Your task to perform on an android device: Open calendar and show me the fourth week of next month Image 0: 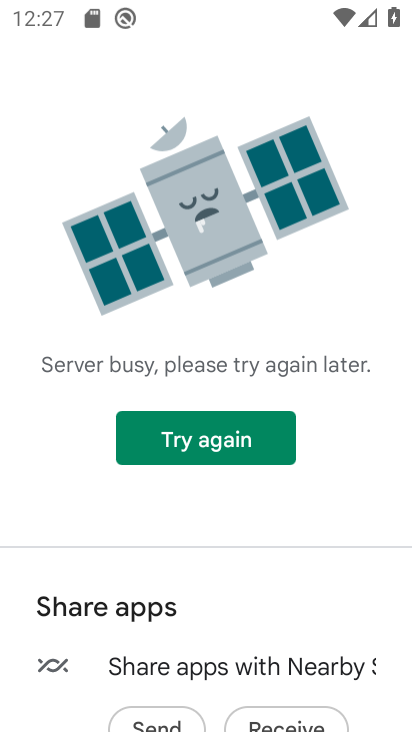
Step 0: press home button
Your task to perform on an android device: Open calendar and show me the fourth week of next month Image 1: 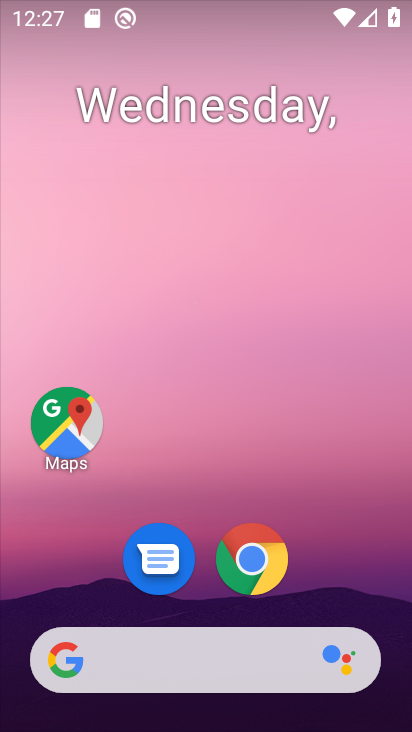
Step 1: drag from (336, 495) to (239, 119)
Your task to perform on an android device: Open calendar and show me the fourth week of next month Image 2: 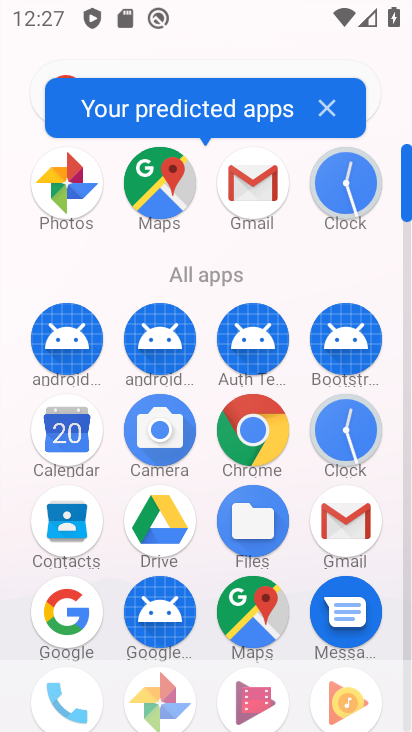
Step 2: click (76, 442)
Your task to perform on an android device: Open calendar and show me the fourth week of next month Image 3: 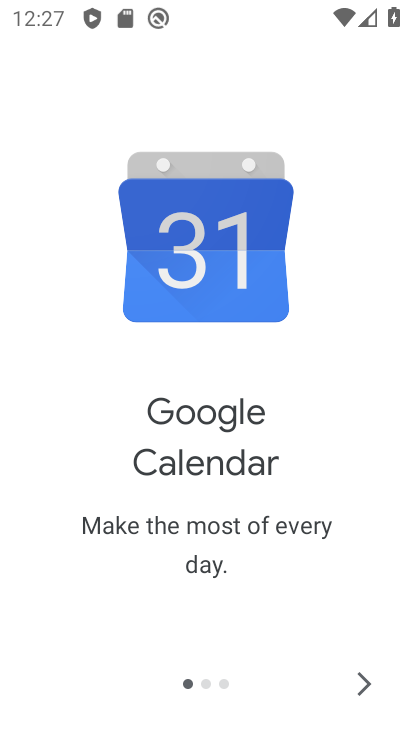
Step 3: click (360, 688)
Your task to perform on an android device: Open calendar and show me the fourth week of next month Image 4: 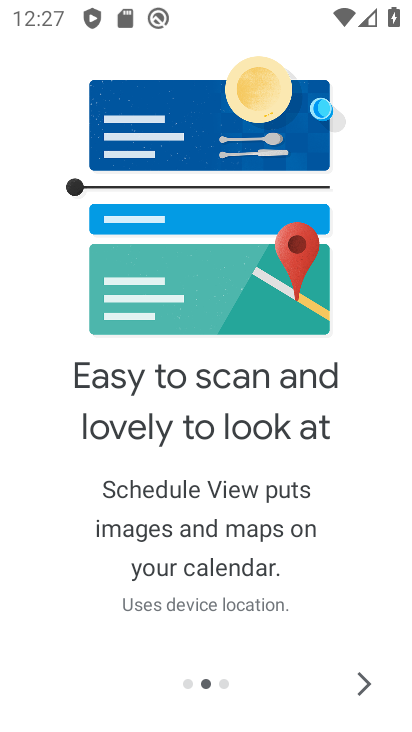
Step 4: click (361, 686)
Your task to perform on an android device: Open calendar and show me the fourth week of next month Image 5: 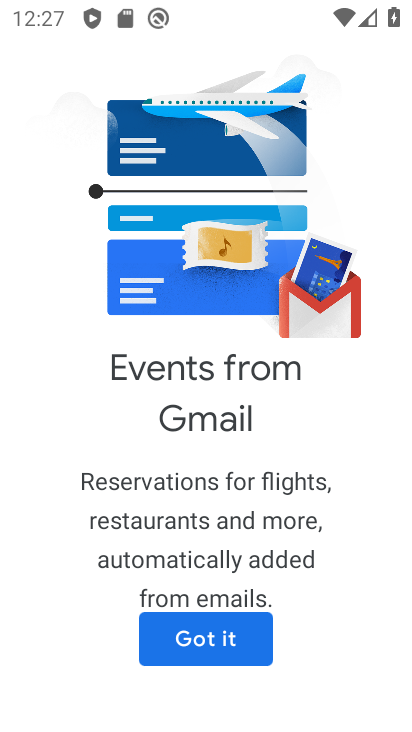
Step 5: click (231, 647)
Your task to perform on an android device: Open calendar and show me the fourth week of next month Image 6: 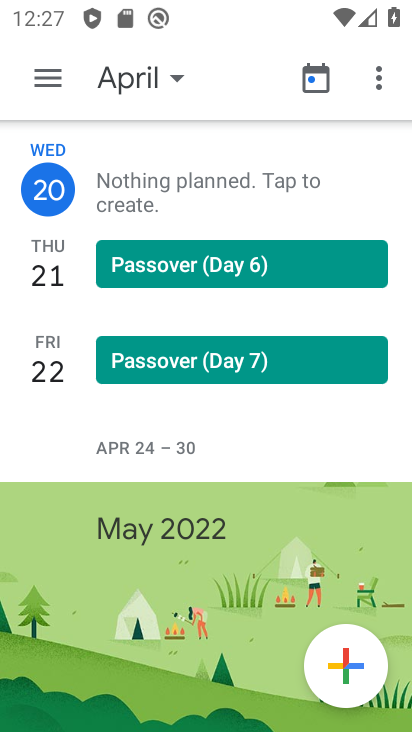
Step 6: click (157, 73)
Your task to perform on an android device: Open calendar and show me the fourth week of next month Image 7: 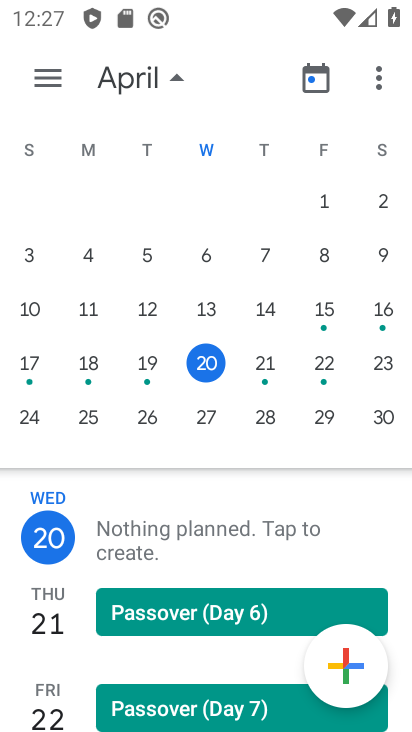
Step 7: drag from (353, 351) to (18, 344)
Your task to perform on an android device: Open calendar and show me the fourth week of next month Image 8: 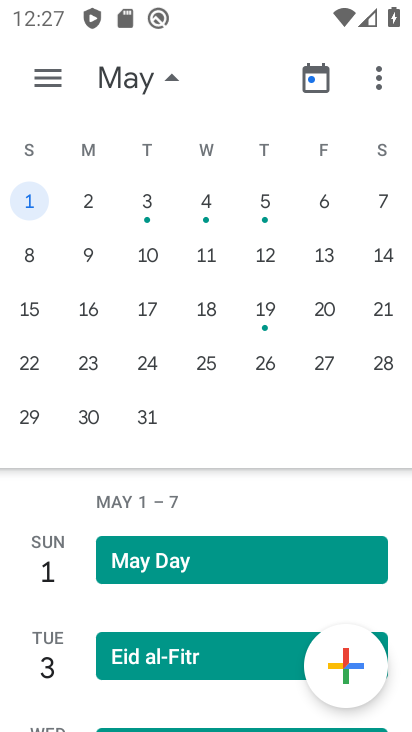
Step 8: click (30, 365)
Your task to perform on an android device: Open calendar and show me the fourth week of next month Image 9: 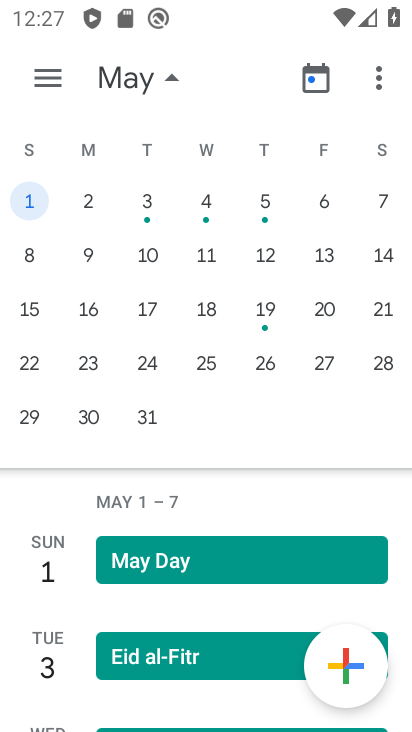
Step 9: click (34, 362)
Your task to perform on an android device: Open calendar and show me the fourth week of next month Image 10: 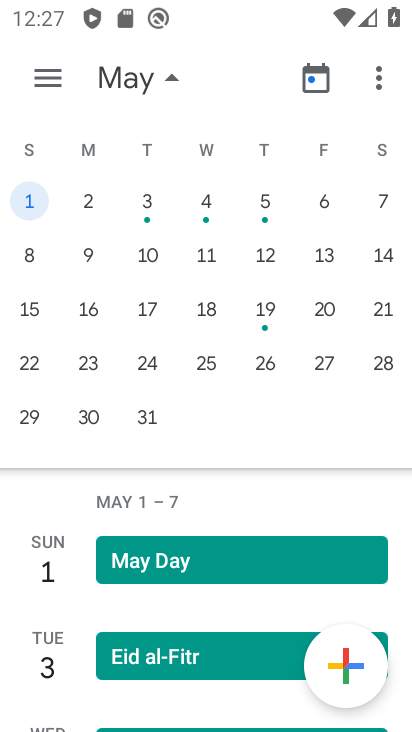
Step 10: click (34, 360)
Your task to perform on an android device: Open calendar and show me the fourth week of next month Image 11: 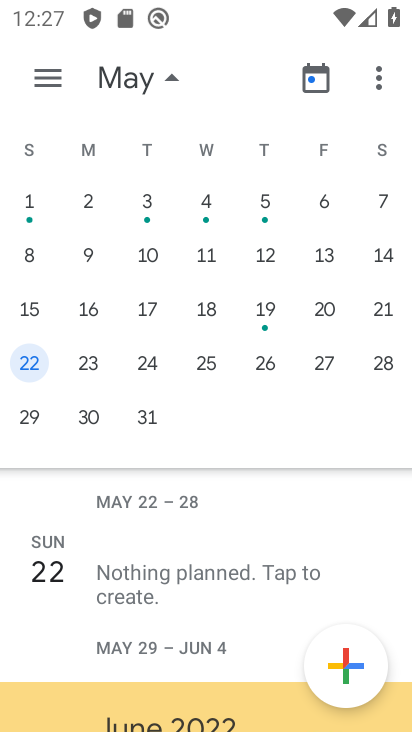
Step 11: click (54, 77)
Your task to perform on an android device: Open calendar and show me the fourth week of next month Image 12: 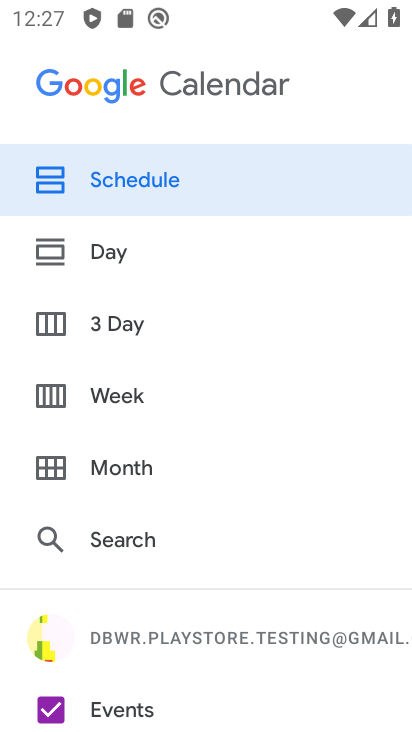
Step 12: click (112, 387)
Your task to perform on an android device: Open calendar and show me the fourth week of next month Image 13: 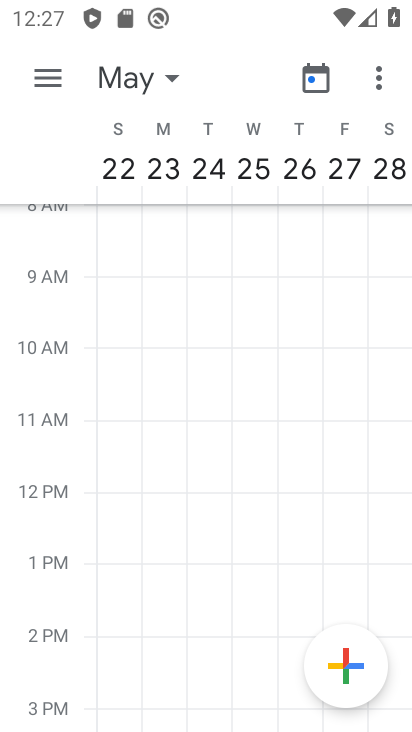
Step 13: task complete